Your task to perform on an android device: Clear the cart on costco. Image 0: 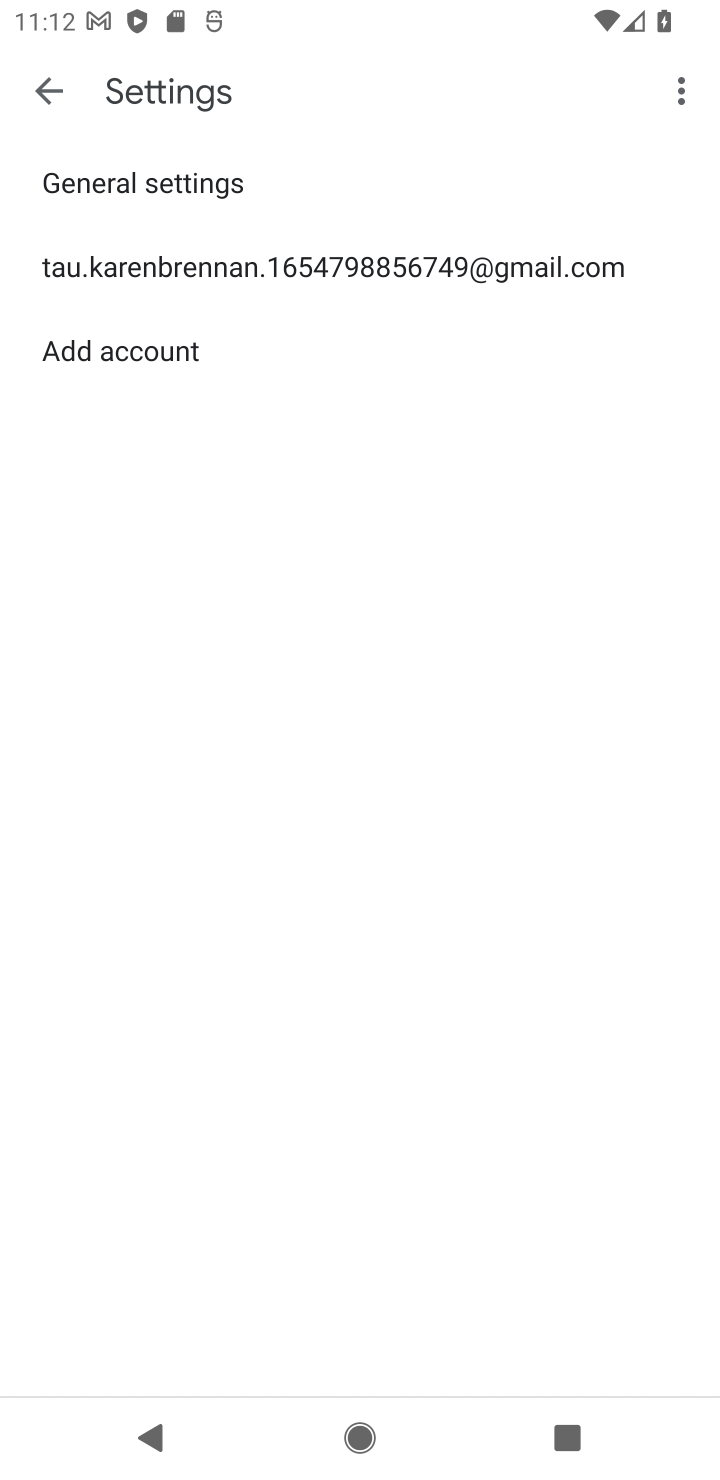
Step 0: press home button
Your task to perform on an android device: Clear the cart on costco. Image 1: 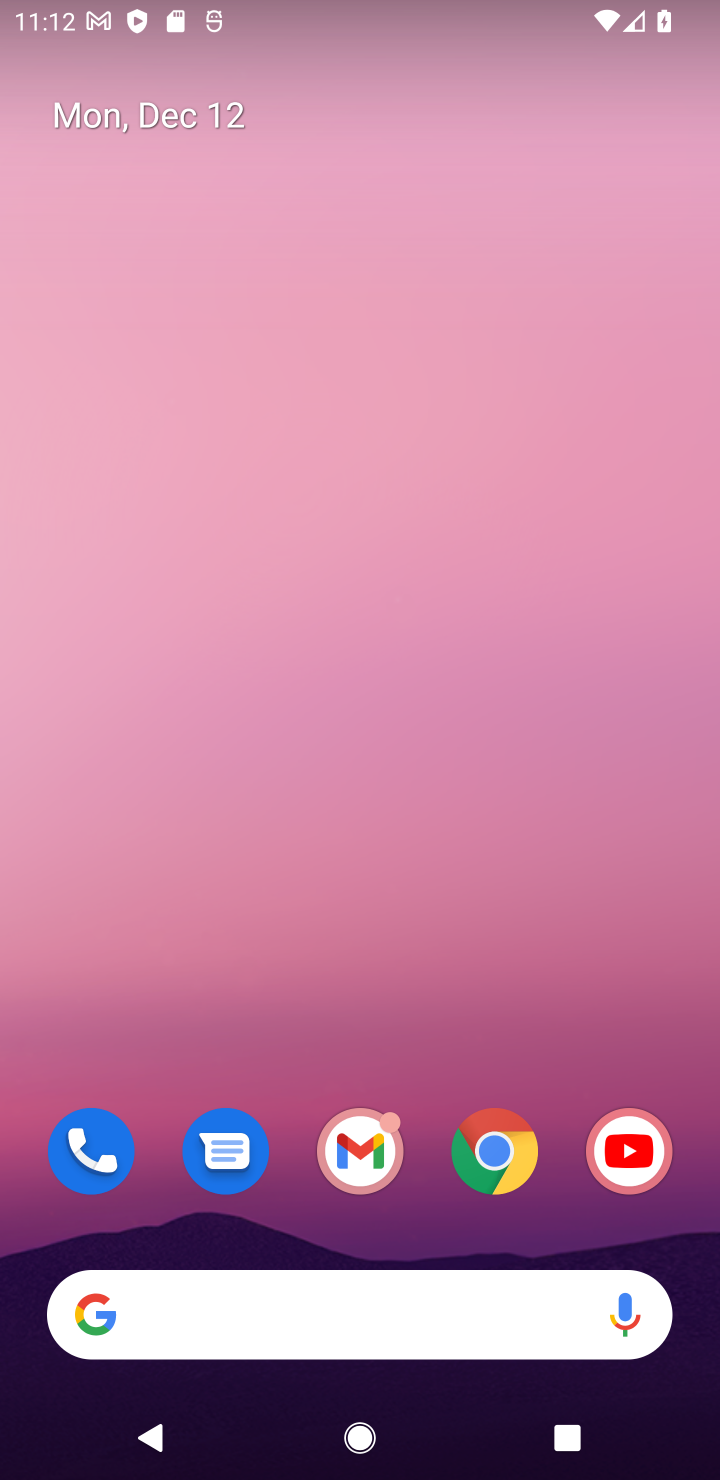
Step 1: drag from (447, 1286) to (433, 273)
Your task to perform on an android device: Clear the cart on costco. Image 2: 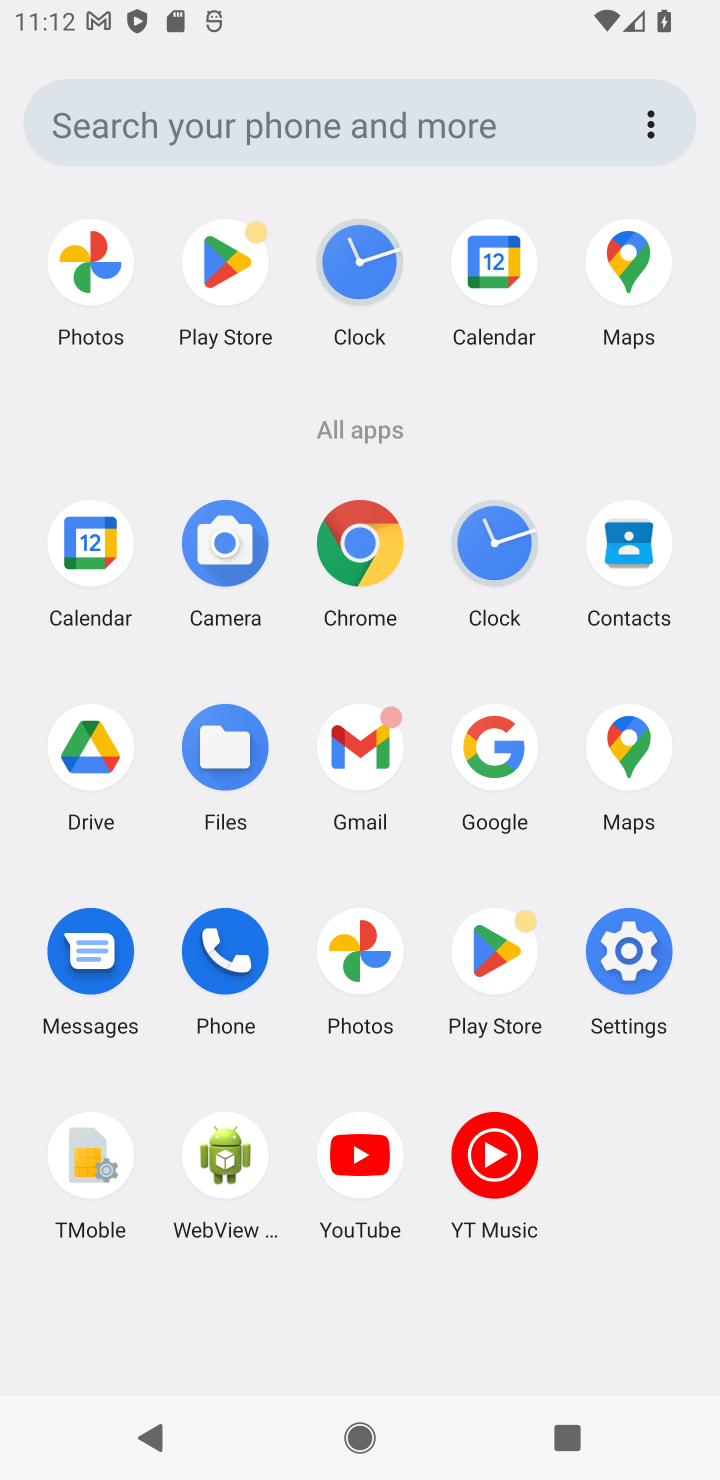
Step 2: click (513, 743)
Your task to perform on an android device: Clear the cart on costco. Image 3: 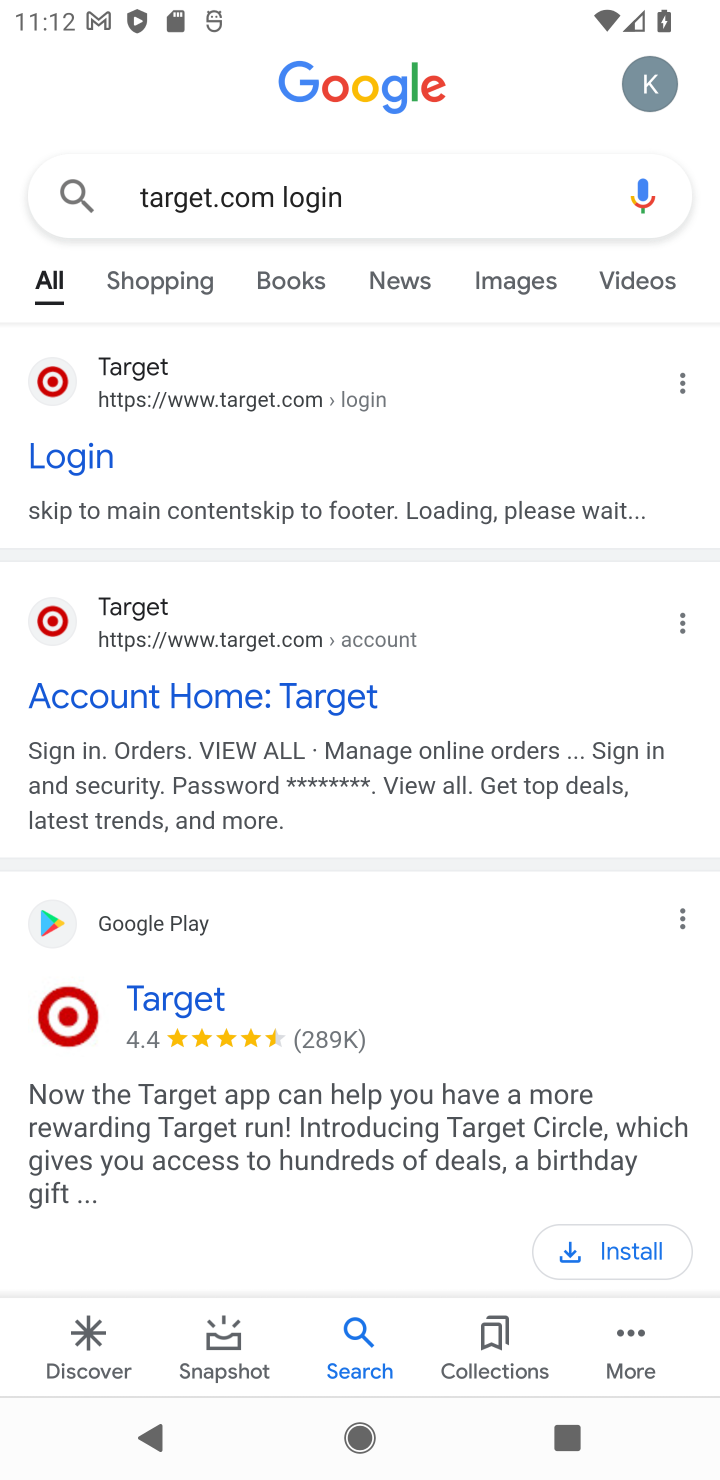
Step 3: click (231, 208)
Your task to perform on an android device: Clear the cart on costco. Image 4: 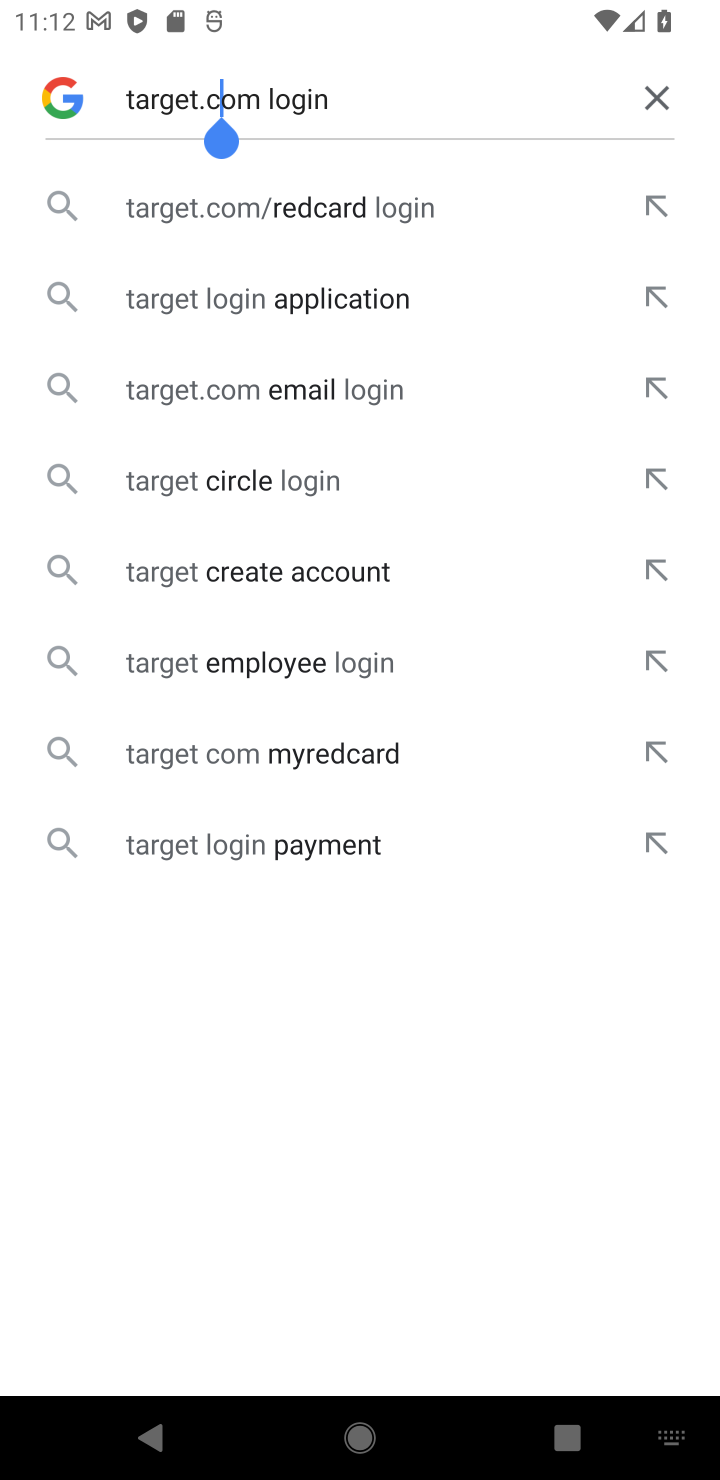
Step 4: click (648, 92)
Your task to perform on an android device: Clear the cart on costco. Image 5: 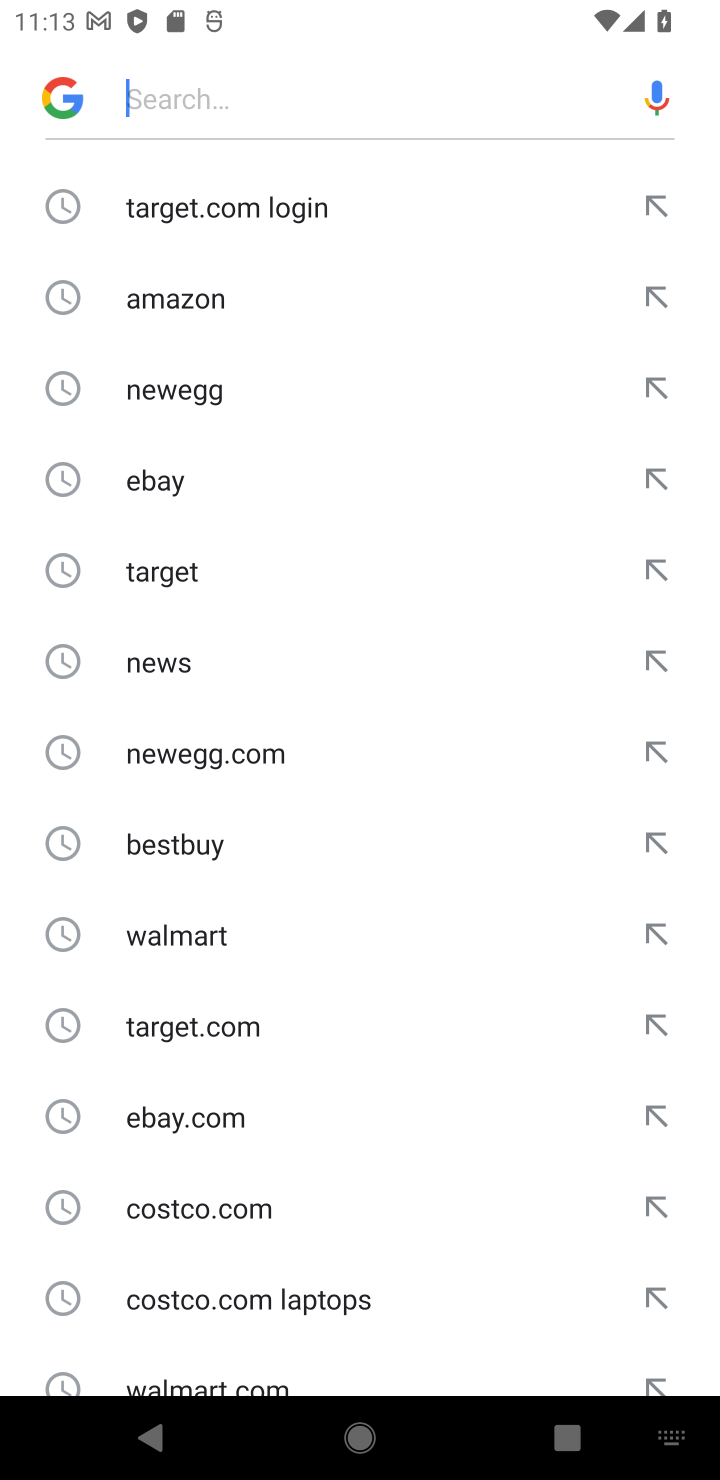
Step 5: click (186, 1216)
Your task to perform on an android device: Clear the cart on costco. Image 6: 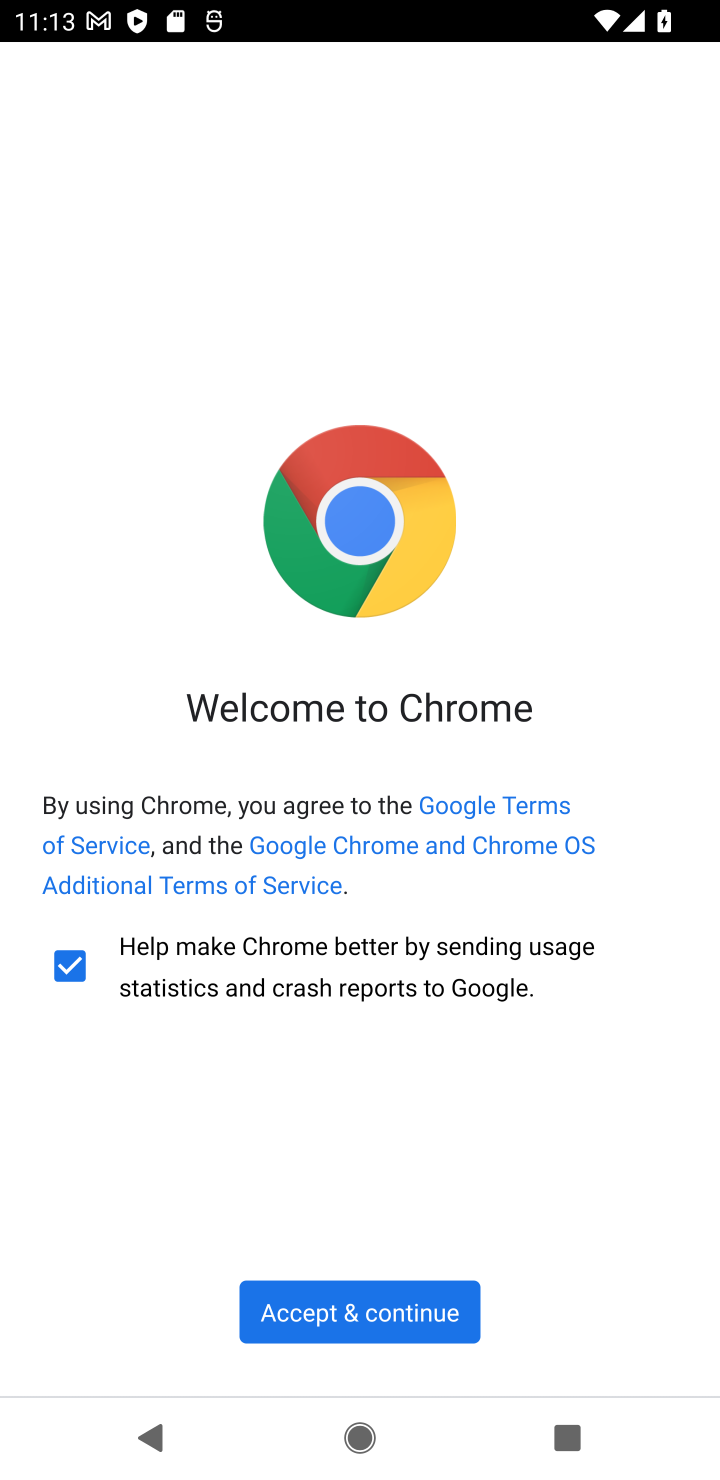
Step 6: click (330, 1330)
Your task to perform on an android device: Clear the cart on costco. Image 7: 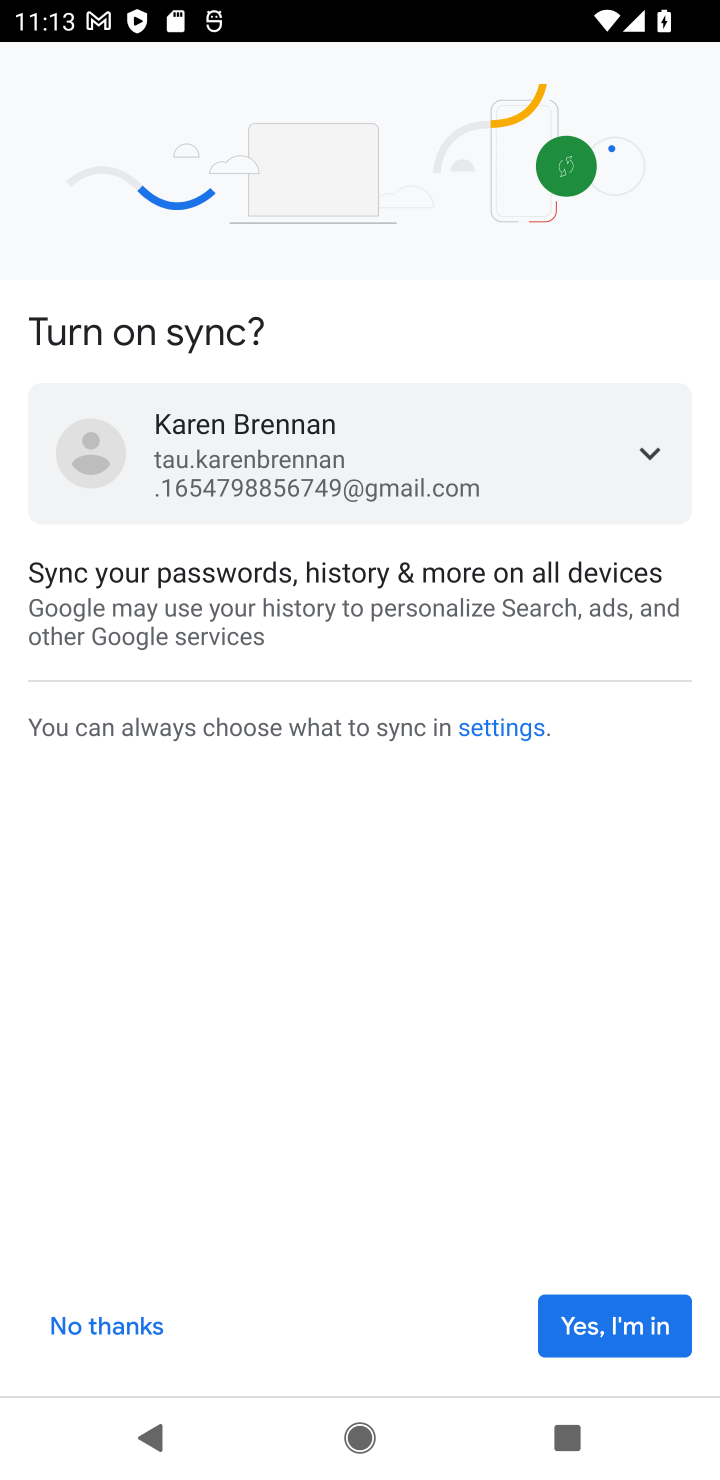
Step 7: click (644, 1324)
Your task to perform on an android device: Clear the cart on costco. Image 8: 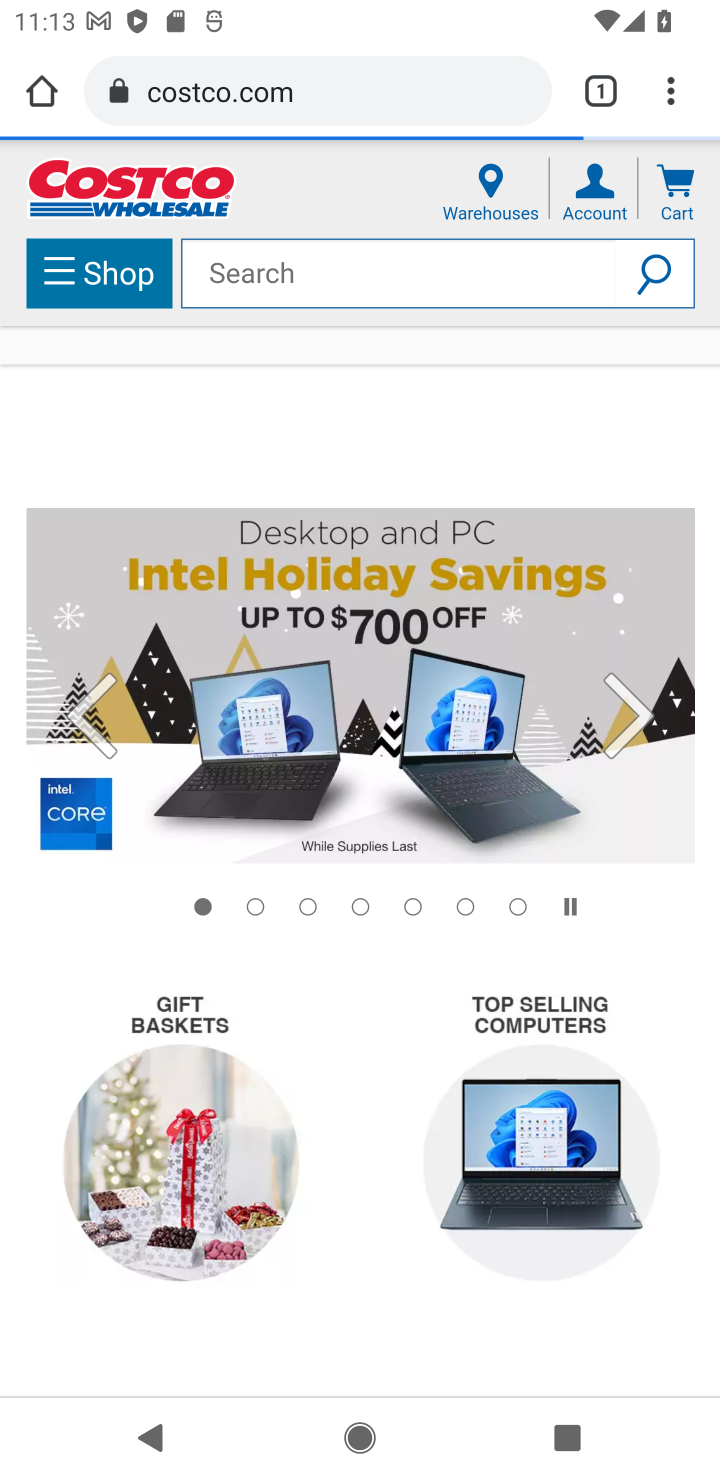
Step 8: click (683, 187)
Your task to perform on an android device: Clear the cart on costco. Image 9: 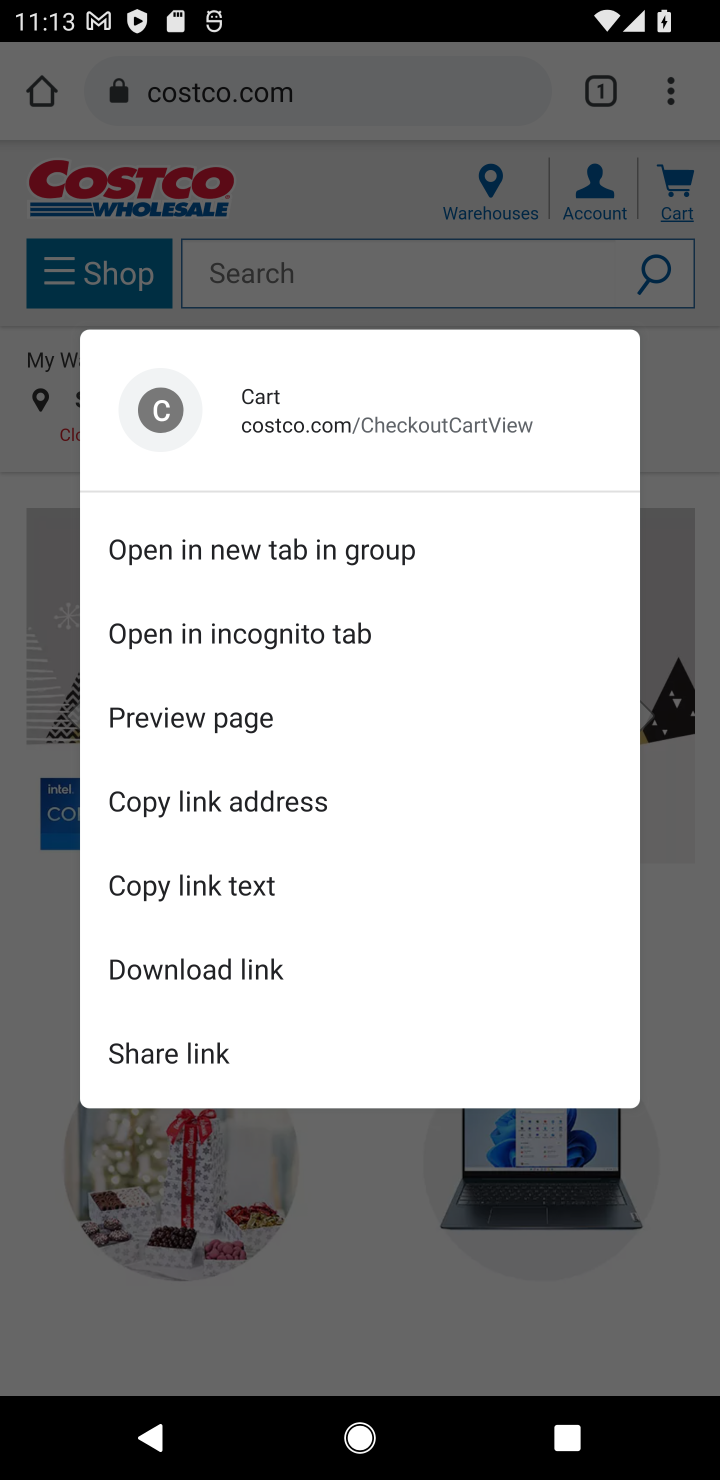
Step 9: click (669, 1053)
Your task to perform on an android device: Clear the cart on costco. Image 10: 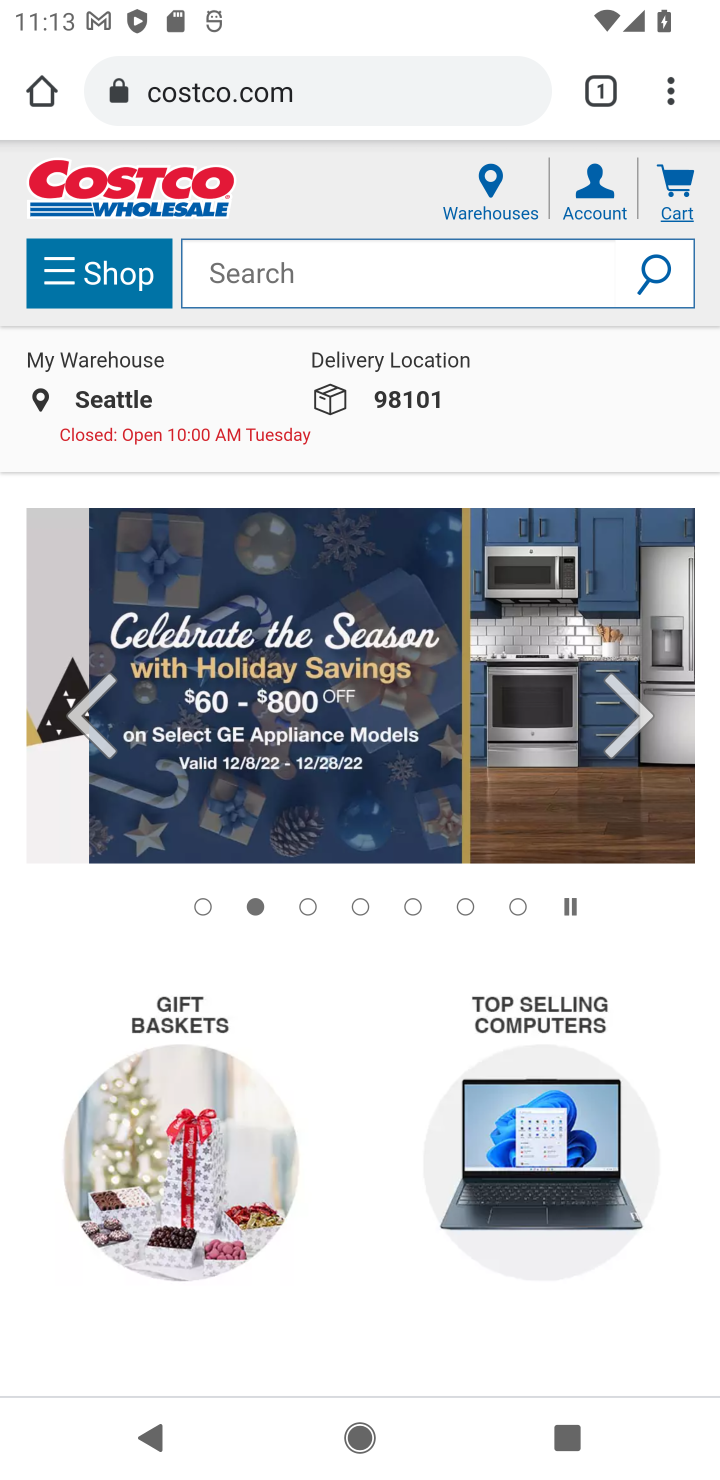
Step 10: task complete